Your task to perform on an android device: Go to notification settings Image 0: 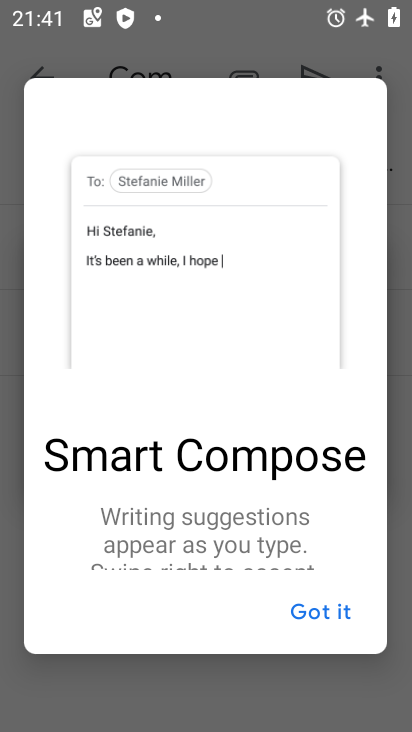
Step 0: press home button
Your task to perform on an android device: Go to notification settings Image 1: 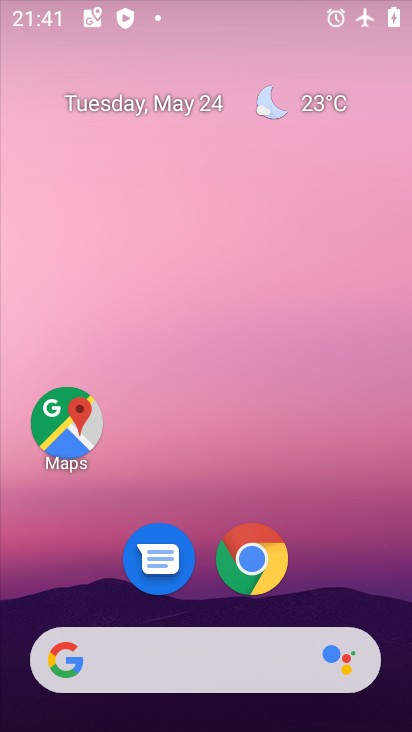
Step 1: drag from (310, 485) to (263, 114)
Your task to perform on an android device: Go to notification settings Image 2: 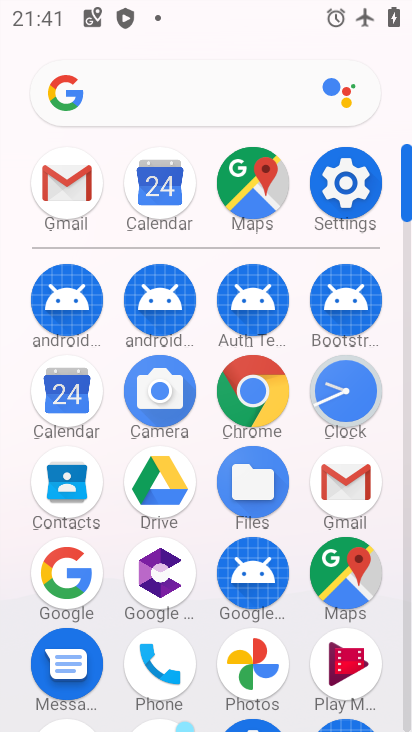
Step 2: click (349, 188)
Your task to perform on an android device: Go to notification settings Image 3: 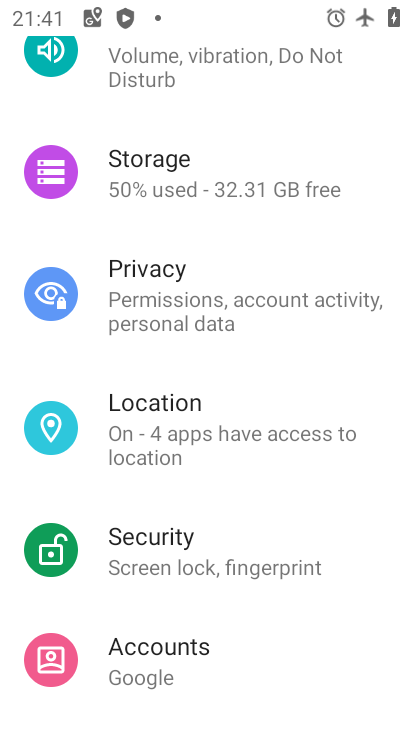
Step 3: drag from (252, 147) to (257, 681)
Your task to perform on an android device: Go to notification settings Image 4: 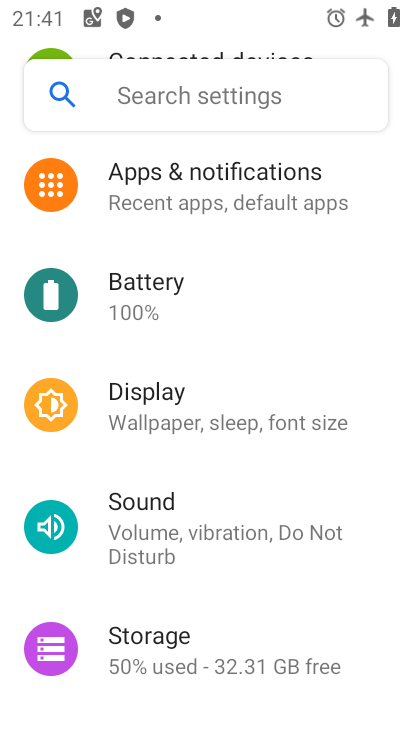
Step 4: drag from (234, 233) to (260, 623)
Your task to perform on an android device: Go to notification settings Image 5: 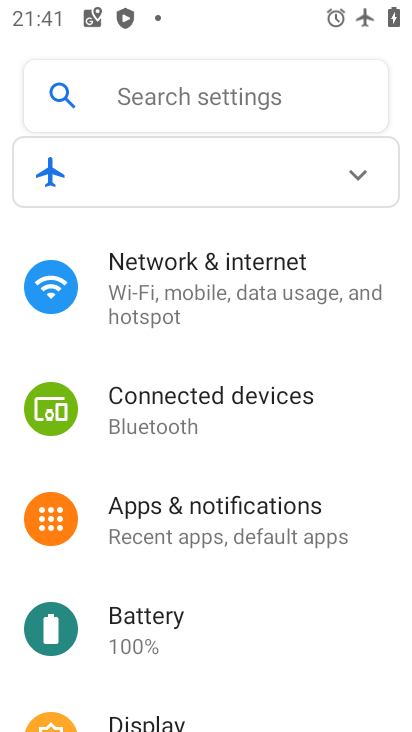
Step 5: click (244, 514)
Your task to perform on an android device: Go to notification settings Image 6: 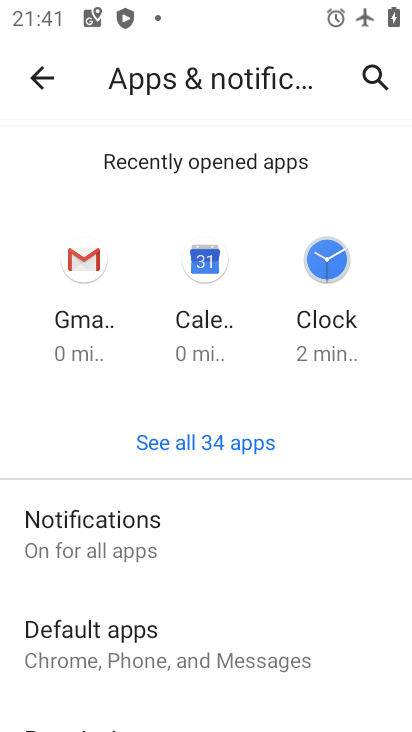
Step 6: click (118, 525)
Your task to perform on an android device: Go to notification settings Image 7: 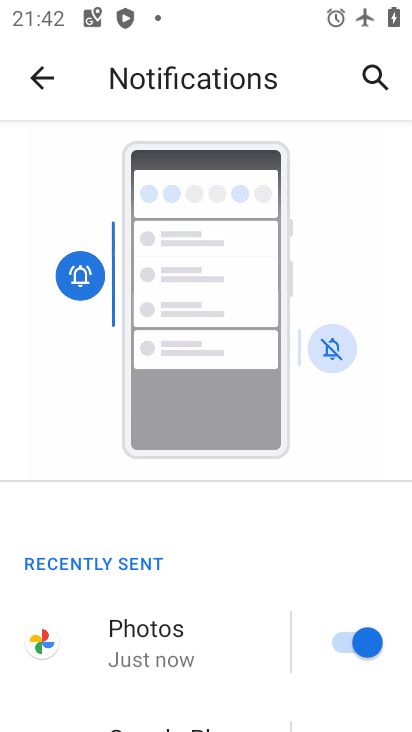
Step 7: task complete